Your task to perform on an android device: Open notification settings Image 0: 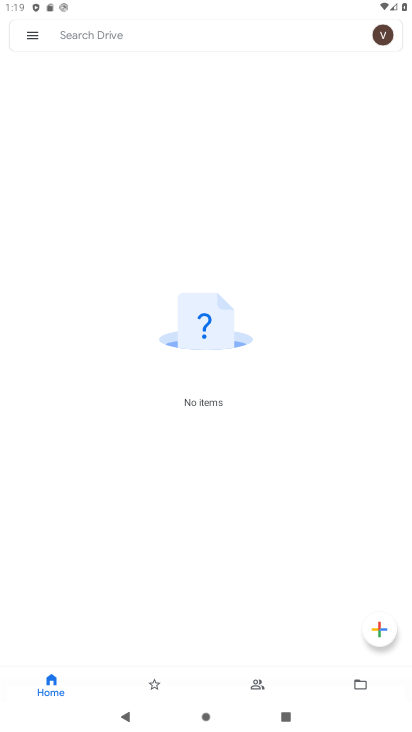
Step 0: press home button
Your task to perform on an android device: Open notification settings Image 1: 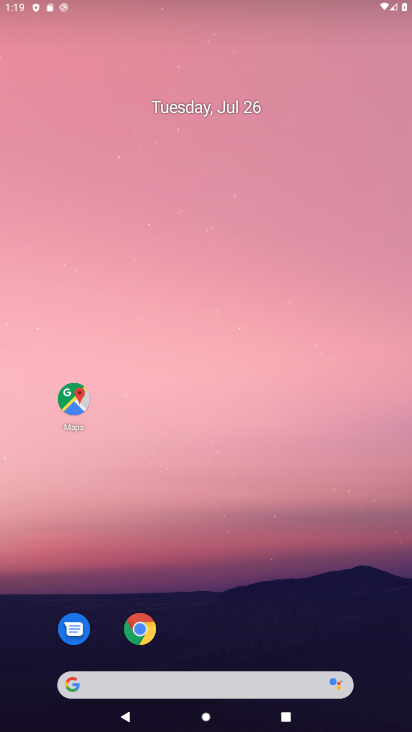
Step 1: drag from (156, 680) to (300, 11)
Your task to perform on an android device: Open notification settings Image 2: 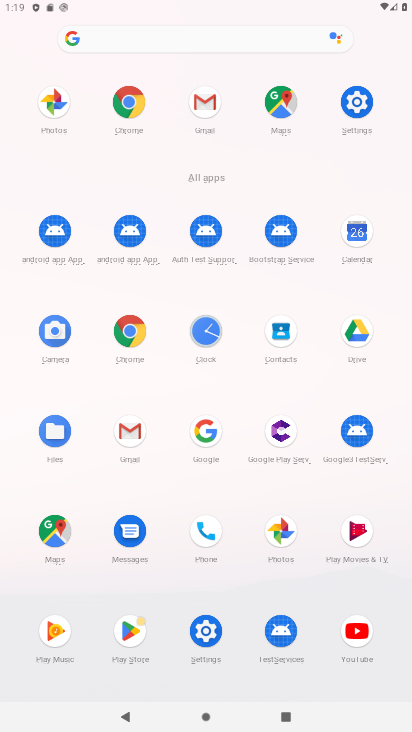
Step 2: click (360, 89)
Your task to perform on an android device: Open notification settings Image 3: 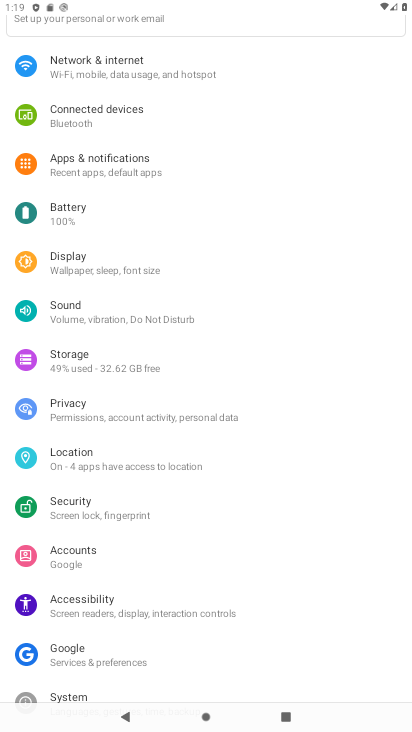
Step 3: click (129, 171)
Your task to perform on an android device: Open notification settings Image 4: 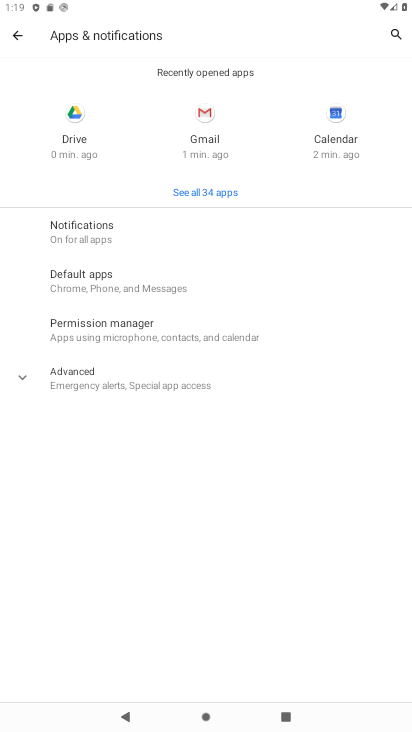
Step 4: task complete